Your task to perform on an android device: Go to privacy settings Image 0: 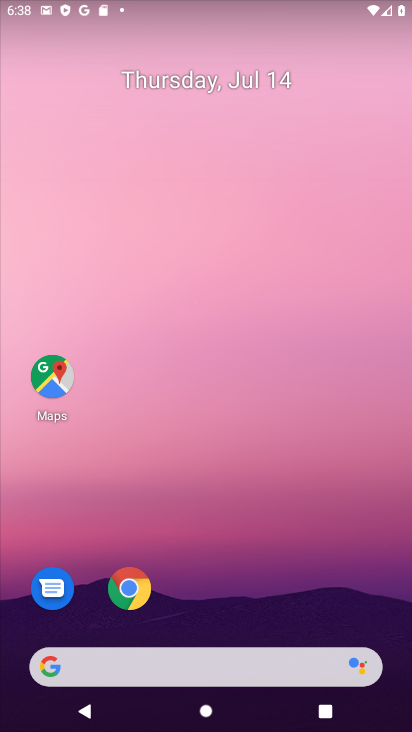
Step 0: drag from (259, 566) to (171, 6)
Your task to perform on an android device: Go to privacy settings Image 1: 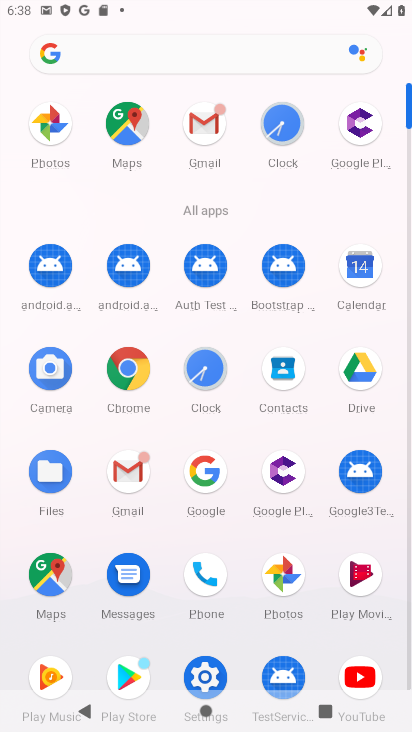
Step 1: click (209, 667)
Your task to perform on an android device: Go to privacy settings Image 2: 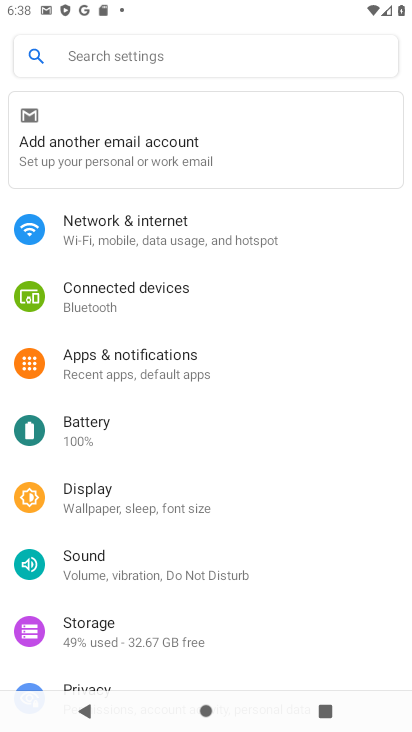
Step 2: click (83, 683)
Your task to perform on an android device: Go to privacy settings Image 3: 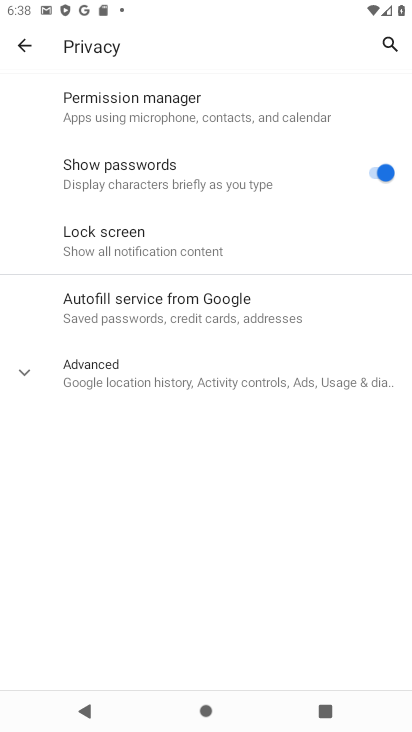
Step 3: task complete